Your task to perform on an android device: add a contact Image 0: 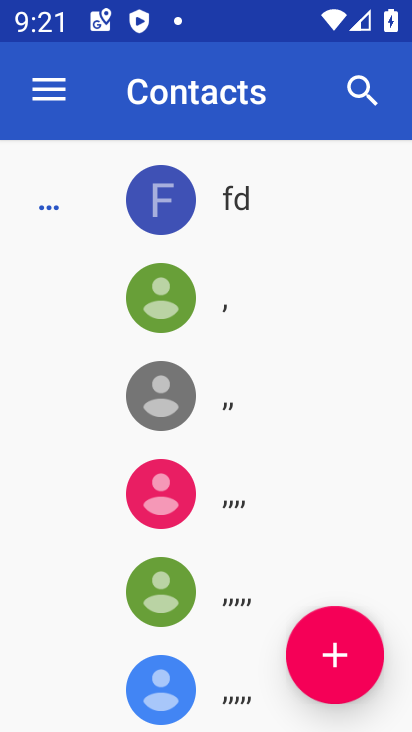
Step 0: press home button
Your task to perform on an android device: add a contact Image 1: 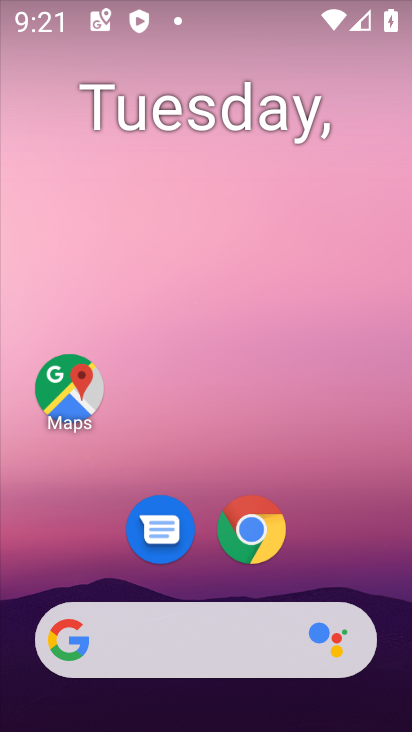
Step 1: drag from (121, 572) to (159, 192)
Your task to perform on an android device: add a contact Image 2: 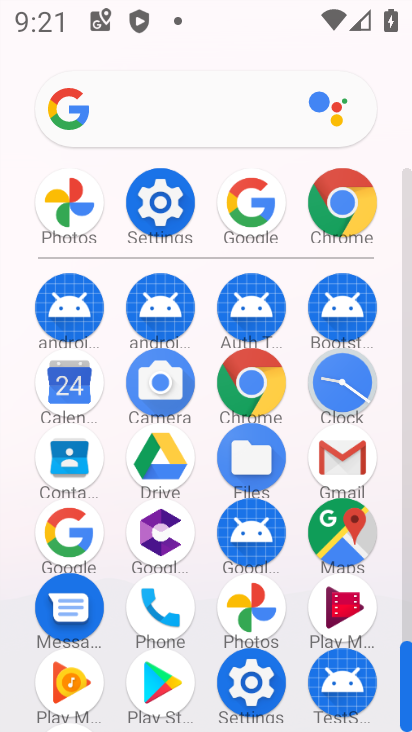
Step 2: click (82, 459)
Your task to perform on an android device: add a contact Image 3: 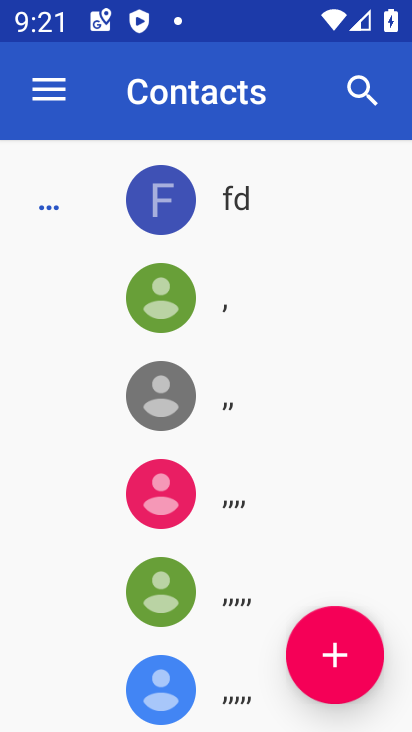
Step 3: click (347, 646)
Your task to perform on an android device: add a contact Image 4: 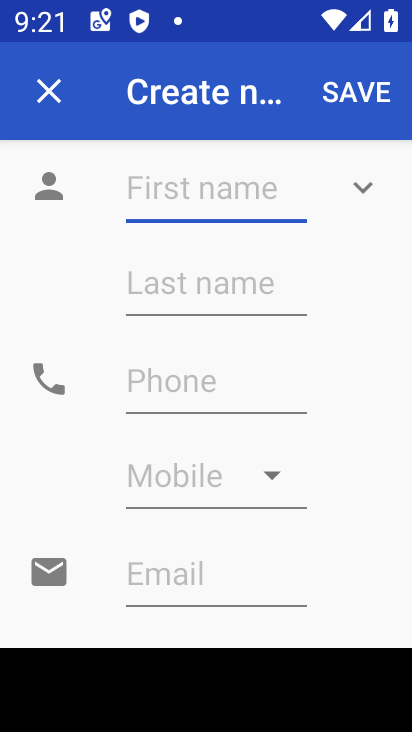
Step 4: type "fgfvcvxf"
Your task to perform on an android device: add a contact Image 5: 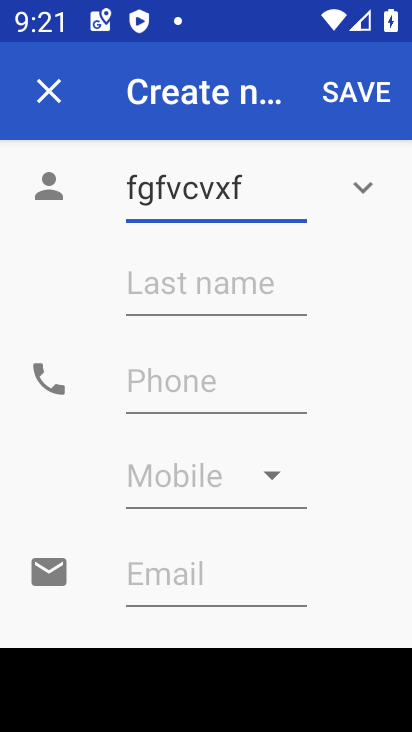
Step 5: click (177, 394)
Your task to perform on an android device: add a contact Image 6: 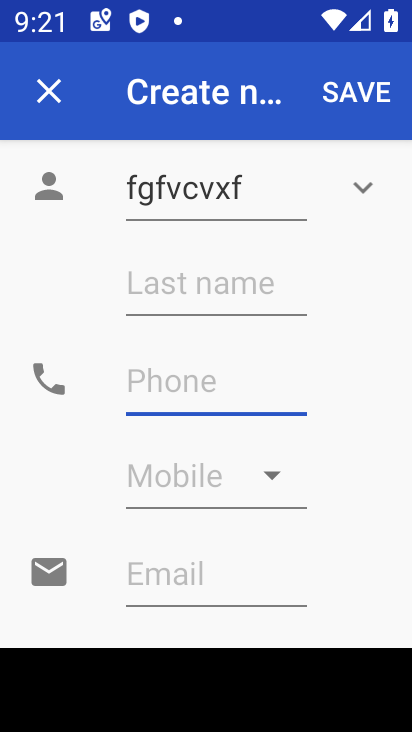
Step 6: type "8687675767"
Your task to perform on an android device: add a contact Image 7: 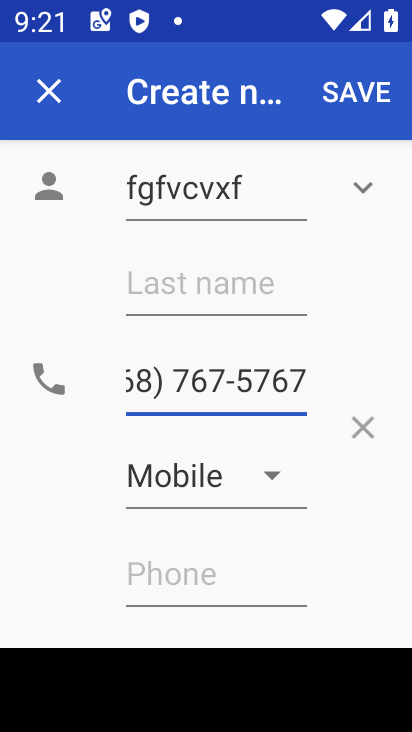
Step 7: click (357, 89)
Your task to perform on an android device: add a contact Image 8: 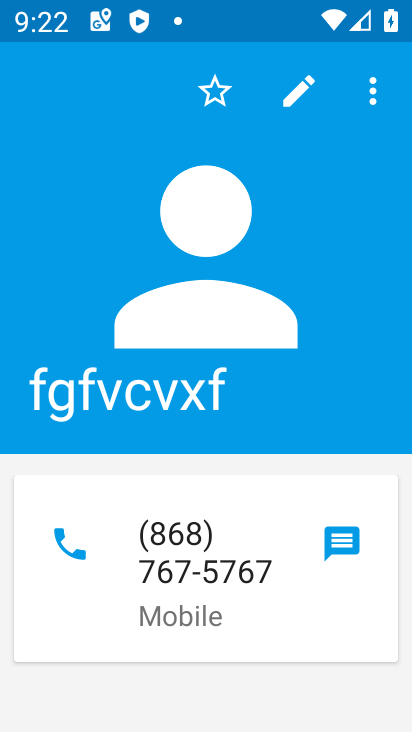
Step 8: task complete